Your task to perform on an android device: open app "DoorDash - Food Delivery" (install if not already installed), go to login, and select forgot password Image 0: 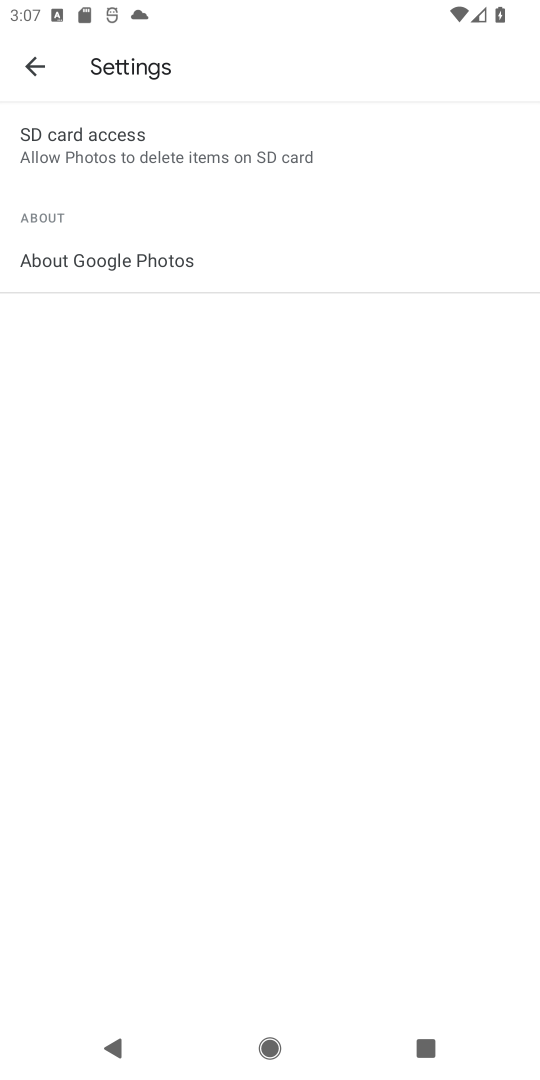
Step 0: press home button
Your task to perform on an android device: open app "DoorDash - Food Delivery" (install if not already installed), go to login, and select forgot password Image 1: 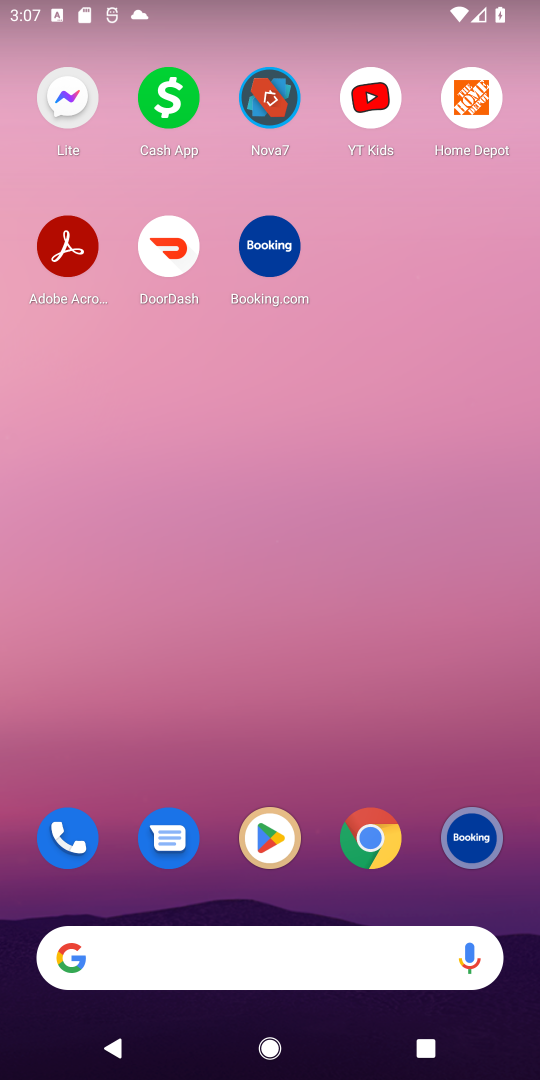
Step 1: click (259, 864)
Your task to perform on an android device: open app "DoorDash - Food Delivery" (install if not already installed), go to login, and select forgot password Image 2: 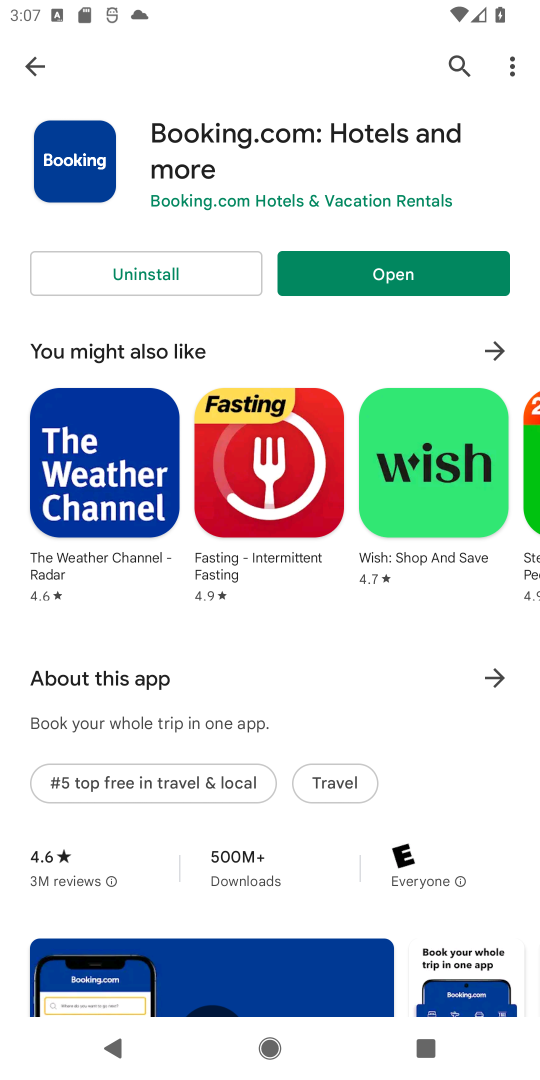
Step 2: click (28, 61)
Your task to perform on an android device: open app "DoorDash - Food Delivery" (install if not already installed), go to login, and select forgot password Image 3: 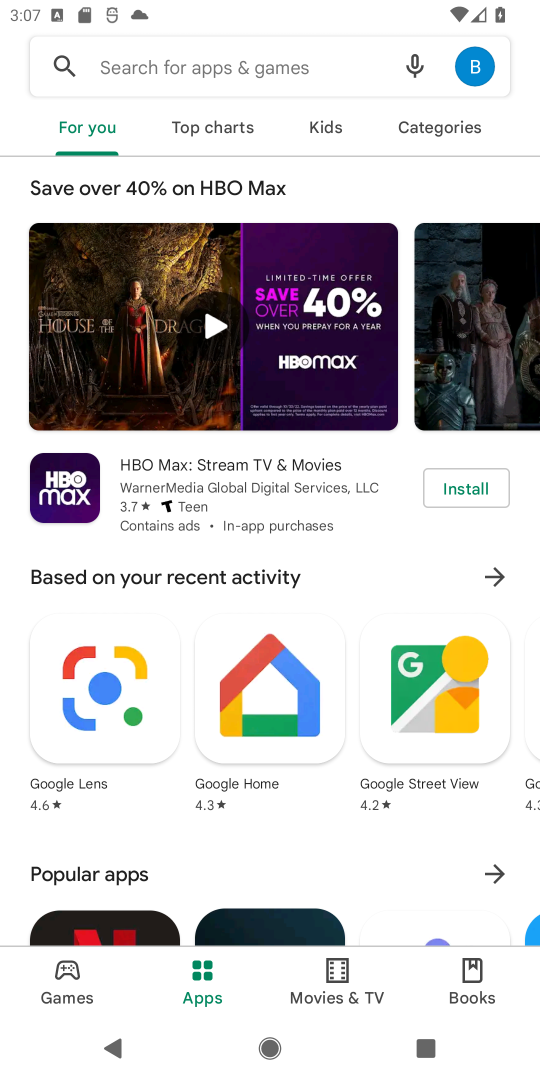
Step 3: click (179, 77)
Your task to perform on an android device: open app "DoorDash - Food Delivery" (install if not already installed), go to login, and select forgot password Image 4: 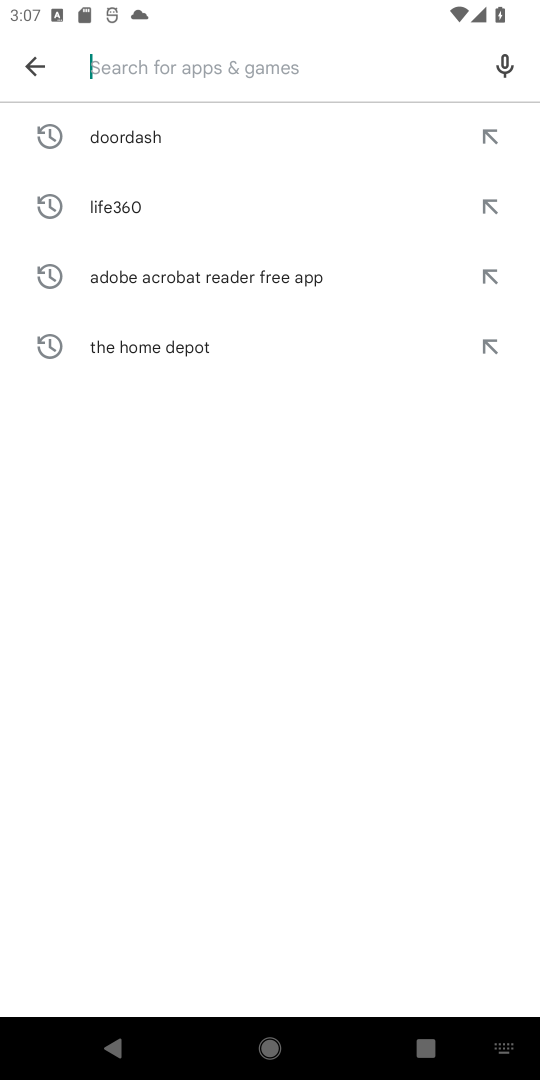
Step 4: type "DoorDash"
Your task to perform on an android device: open app "DoorDash - Food Delivery" (install if not already installed), go to login, and select forgot password Image 5: 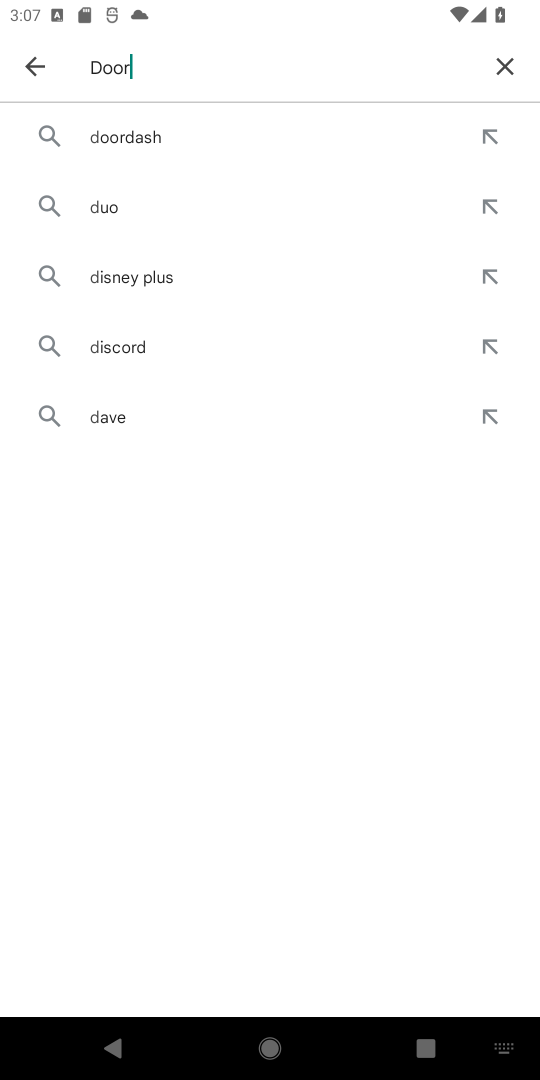
Step 5: type ""
Your task to perform on an android device: open app "DoorDash - Food Delivery" (install if not already installed), go to login, and select forgot password Image 6: 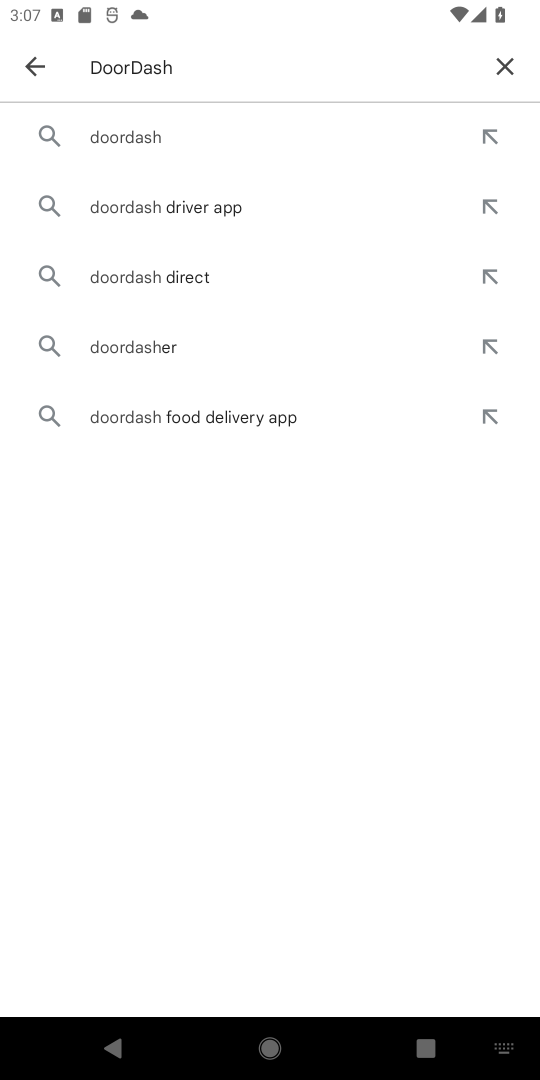
Step 6: click (138, 132)
Your task to perform on an android device: open app "DoorDash - Food Delivery" (install if not already installed), go to login, and select forgot password Image 7: 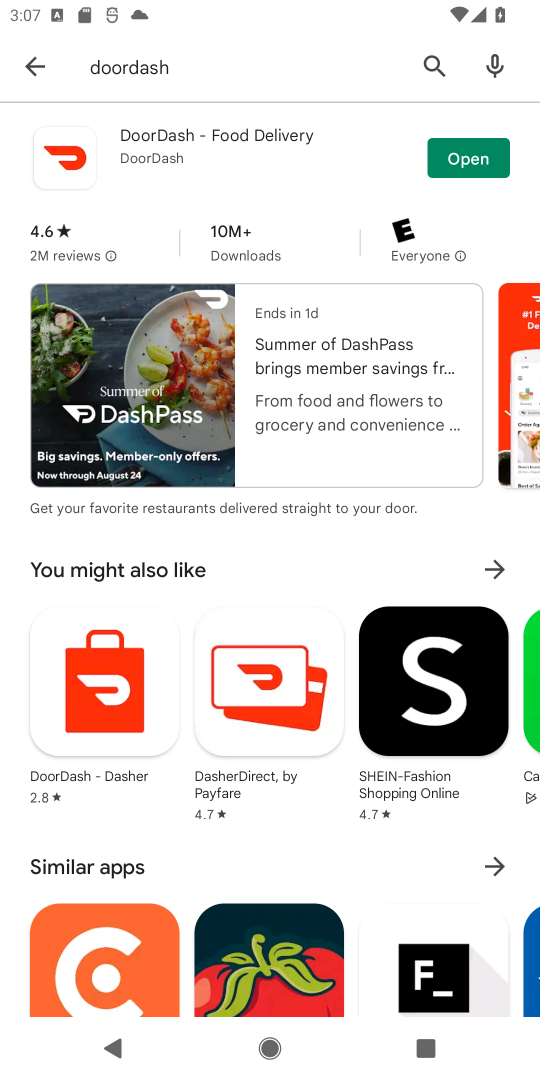
Step 7: click (499, 154)
Your task to perform on an android device: open app "DoorDash - Food Delivery" (install if not already installed), go to login, and select forgot password Image 8: 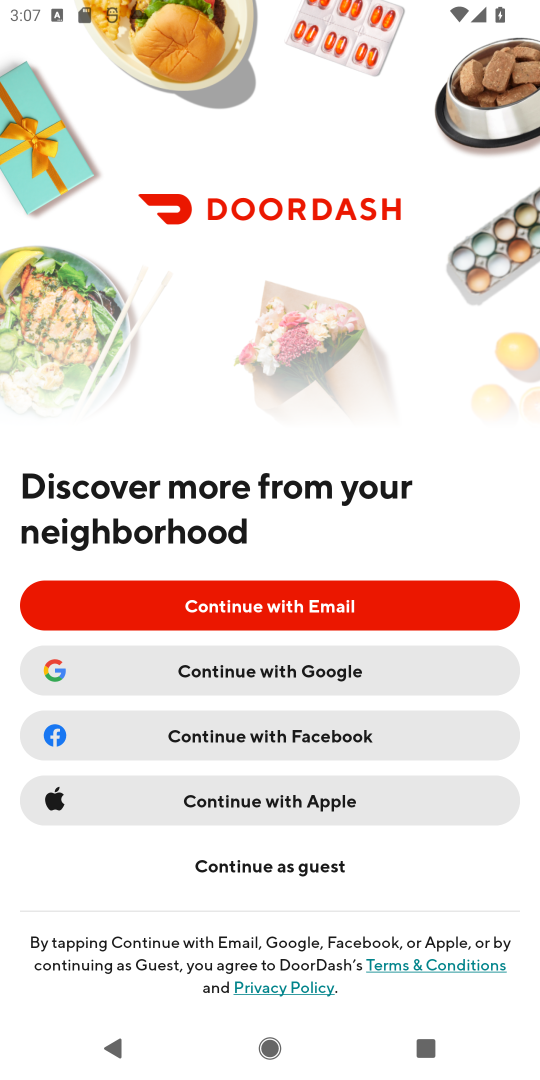
Step 8: click (273, 872)
Your task to perform on an android device: open app "DoorDash - Food Delivery" (install if not already installed), go to login, and select forgot password Image 9: 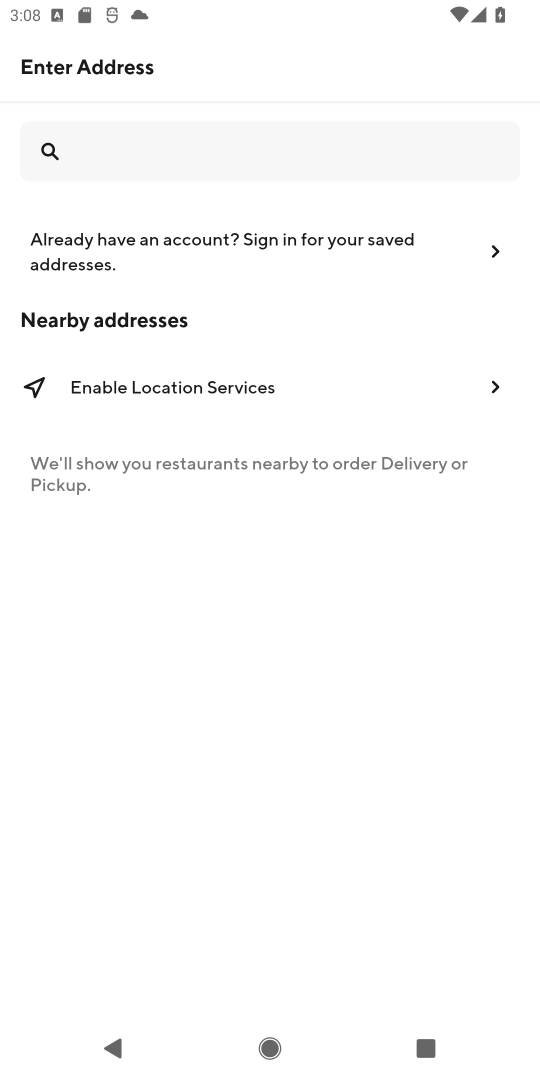
Step 9: task complete